Your task to perform on an android device: Add "usb-a to usb-b" to the cart on ebay.com, then select checkout. Image 0: 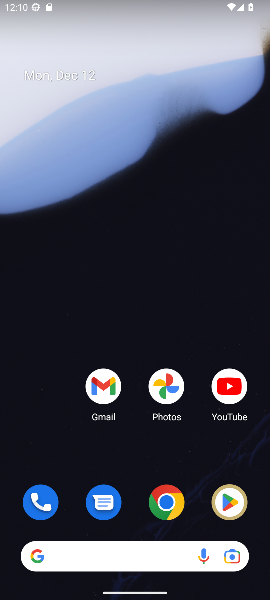
Step 0: click (164, 506)
Your task to perform on an android device: Add "usb-a to usb-b" to the cart on ebay.com, then select checkout. Image 1: 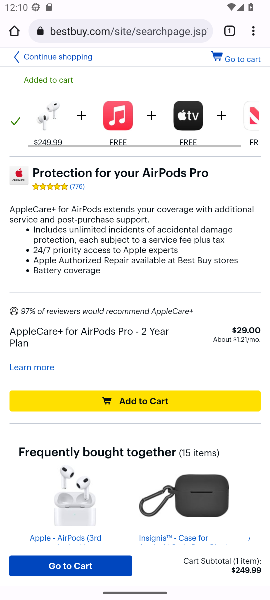
Step 1: click (160, 34)
Your task to perform on an android device: Add "usb-a to usb-b" to the cart on ebay.com, then select checkout. Image 2: 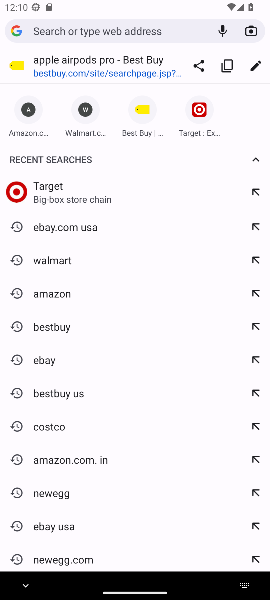
Step 2: click (99, 362)
Your task to perform on an android device: Add "usb-a to usb-b" to the cart on ebay.com, then select checkout. Image 3: 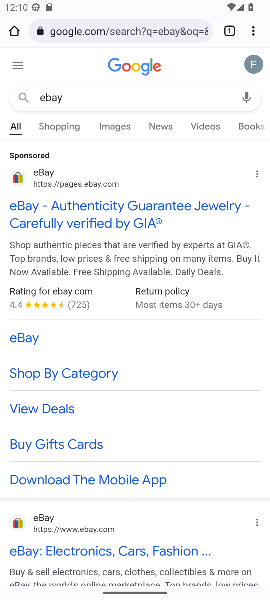
Step 3: click (70, 197)
Your task to perform on an android device: Add "usb-a to usb-b" to the cart on ebay.com, then select checkout. Image 4: 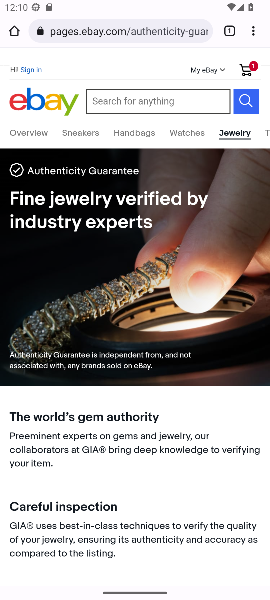
Step 4: click (135, 97)
Your task to perform on an android device: Add "usb-a to usb-b" to the cart on ebay.com, then select checkout. Image 5: 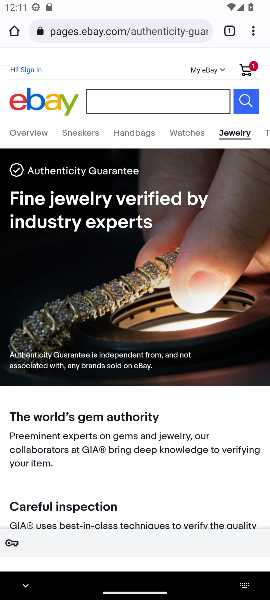
Step 5: type "usb-a to usb-b"
Your task to perform on an android device: Add "usb-a to usb-b" to the cart on ebay.com, then select checkout. Image 6: 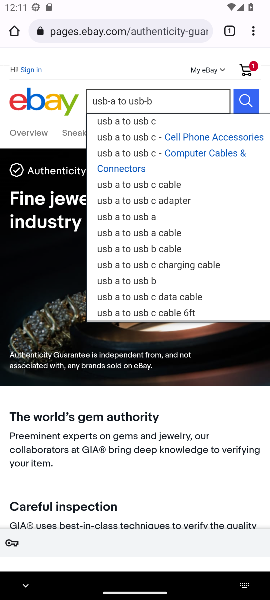
Step 6: click (244, 105)
Your task to perform on an android device: Add "usb-a to usb-b" to the cart on ebay.com, then select checkout. Image 7: 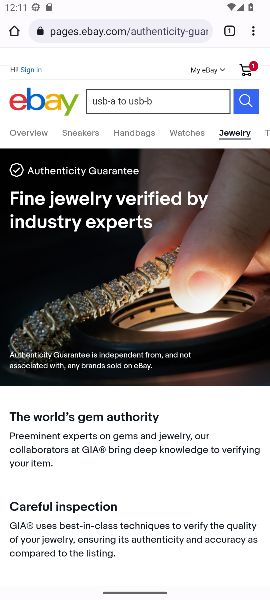
Step 7: click (244, 106)
Your task to perform on an android device: Add "usb-a to usb-b" to the cart on ebay.com, then select checkout. Image 8: 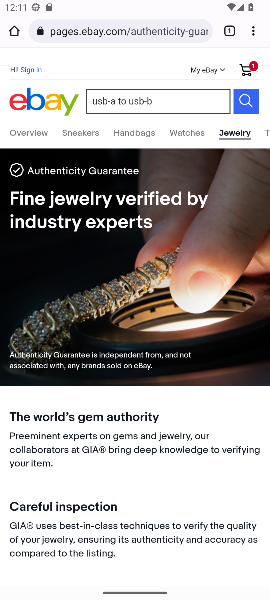
Step 8: click (244, 106)
Your task to perform on an android device: Add "usb-a to usb-b" to the cart on ebay.com, then select checkout. Image 9: 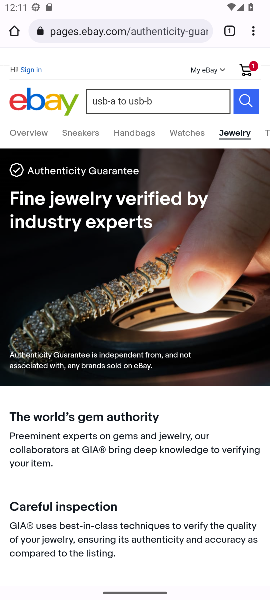
Step 9: task complete